Your task to perform on an android device: Set the phone to "Do not disturb". Image 0: 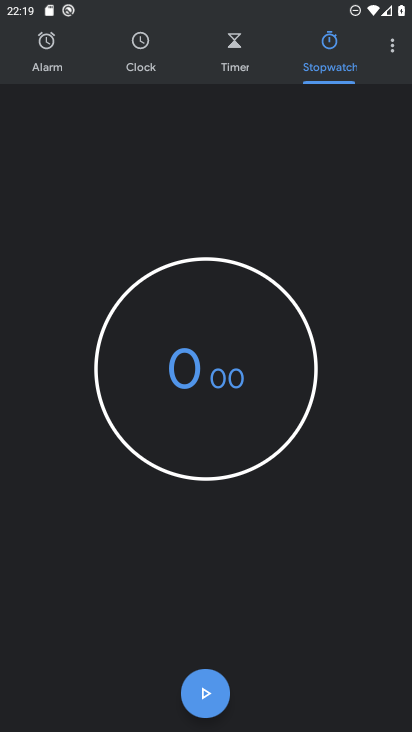
Step 0: drag from (277, 0) to (278, 491)
Your task to perform on an android device: Set the phone to "Do not disturb". Image 1: 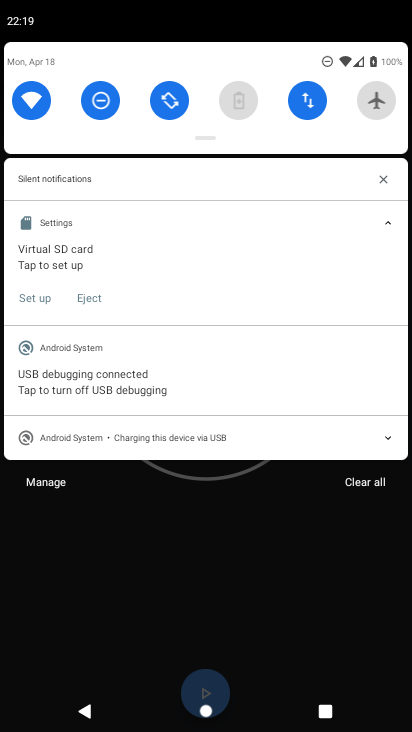
Step 1: task complete